Your task to perform on an android device: turn on sleep mode Image 0: 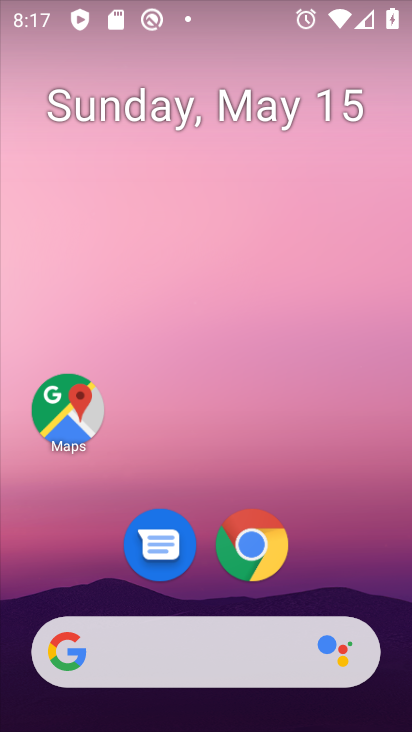
Step 0: drag from (383, 572) to (369, 126)
Your task to perform on an android device: turn on sleep mode Image 1: 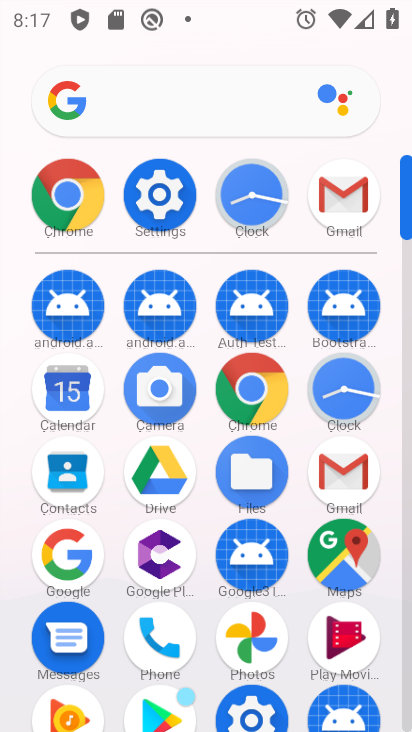
Step 1: click (150, 194)
Your task to perform on an android device: turn on sleep mode Image 2: 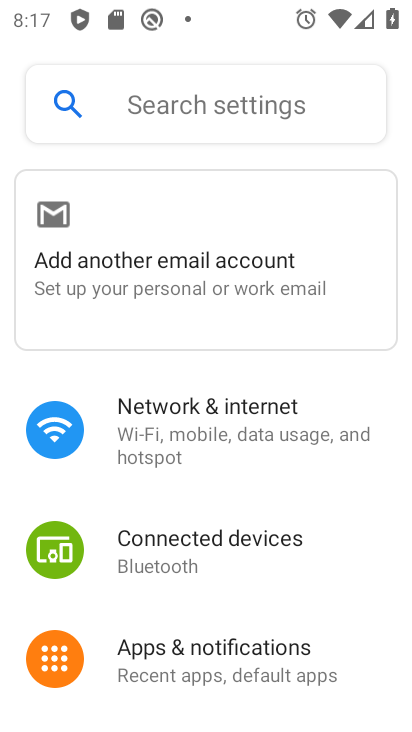
Step 2: drag from (360, 637) to (368, 419)
Your task to perform on an android device: turn on sleep mode Image 3: 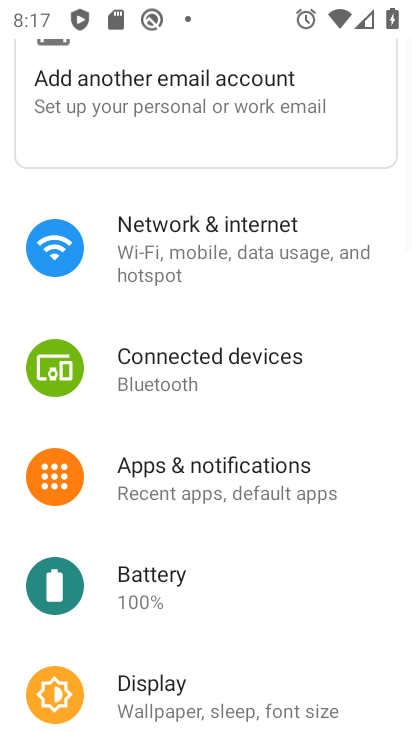
Step 3: drag from (350, 658) to (357, 512)
Your task to perform on an android device: turn on sleep mode Image 4: 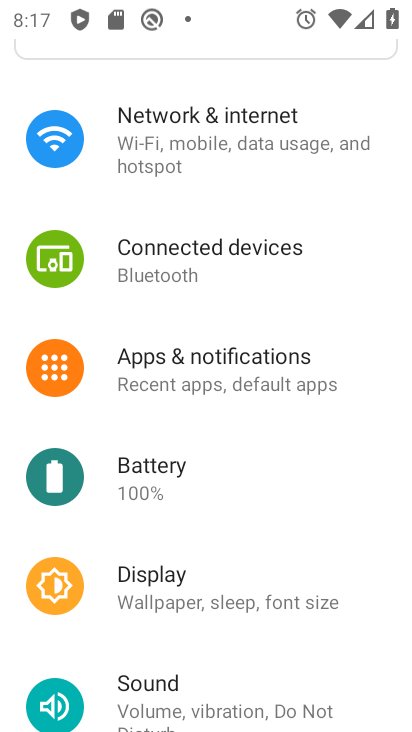
Step 4: drag from (363, 653) to (379, 459)
Your task to perform on an android device: turn on sleep mode Image 5: 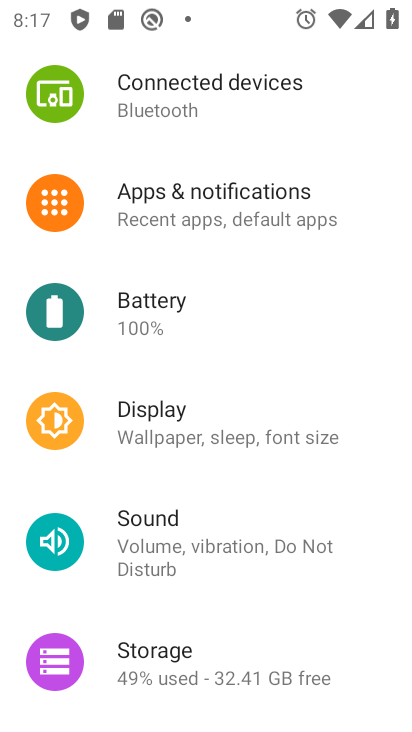
Step 5: drag from (368, 647) to (376, 459)
Your task to perform on an android device: turn on sleep mode Image 6: 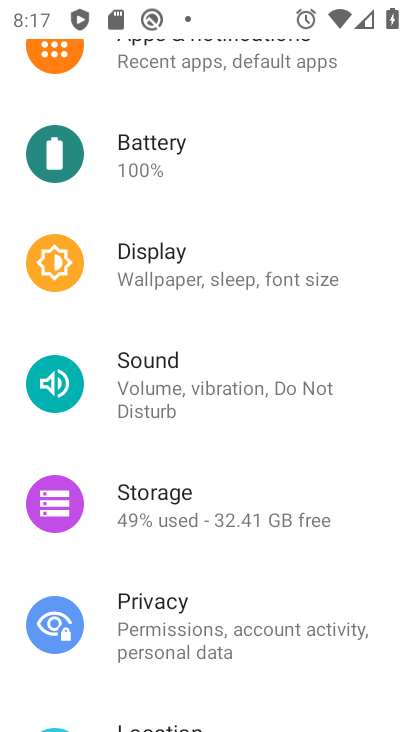
Step 6: click (224, 262)
Your task to perform on an android device: turn on sleep mode Image 7: 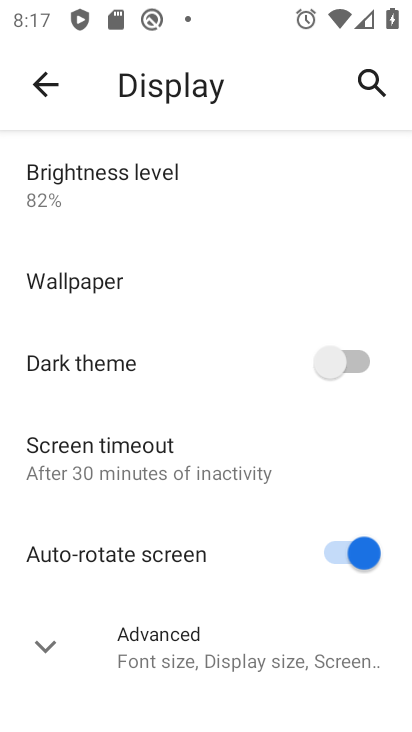
Step 7: click (163, 665)
Your task to perform on an android device: turn on sleep mode Image 8: 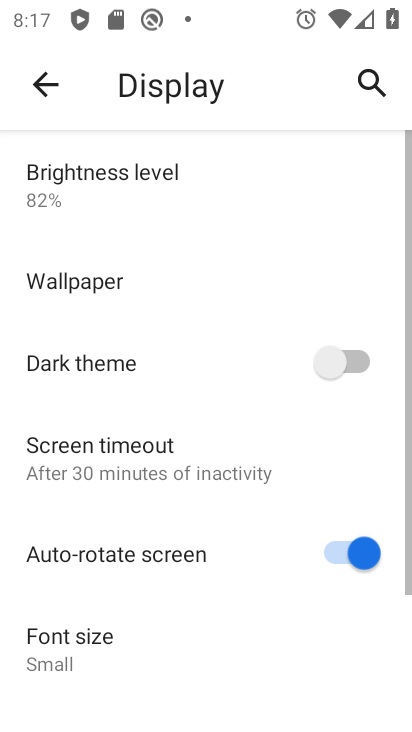
Step 8: task complete